Your task to perform on an android device: What's on my calendar tomorrow? Image 0: 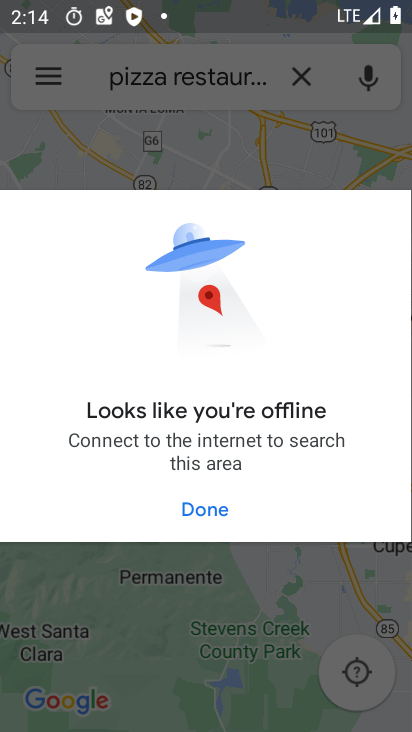
Step 0: press home button
Your task to perform on an android device: What's on my calendar tomorrow? Image 1: 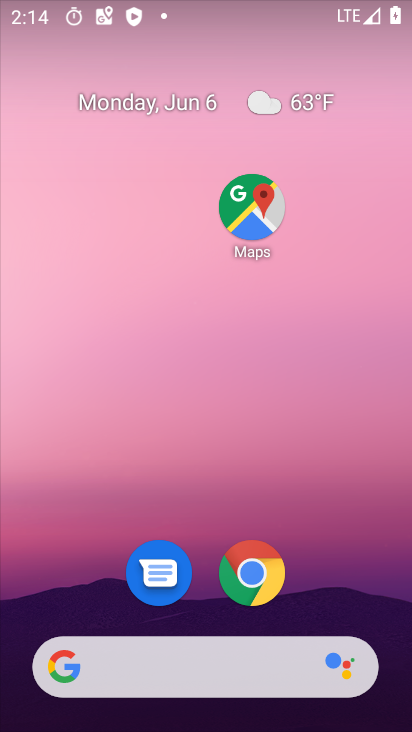
Step 1: click (166, 125)
Your task to perform on an android device: What's on my calendar tomorrow? Image 2: 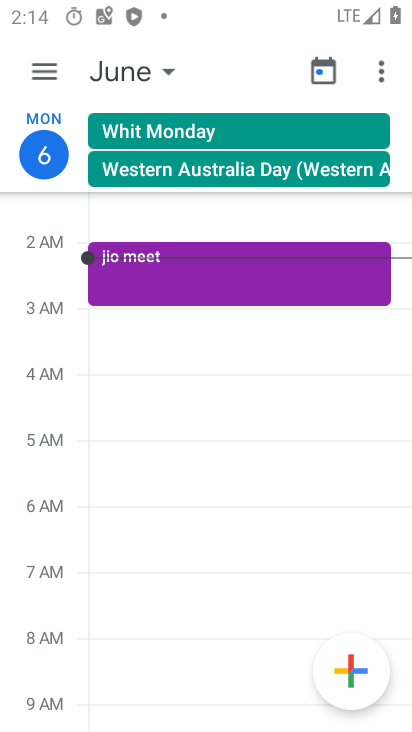
Step 2: drag from (37, 305) to (86, 157)
Your task to perform on an android device: What's on my calendar tomorrow? Image 3: 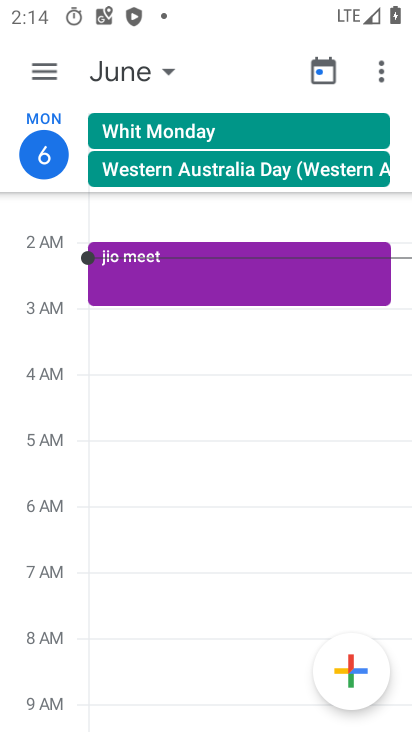
Step 3: press home button
Your task to perform on an android device: What's on my calendar tomorrow? Image 4: 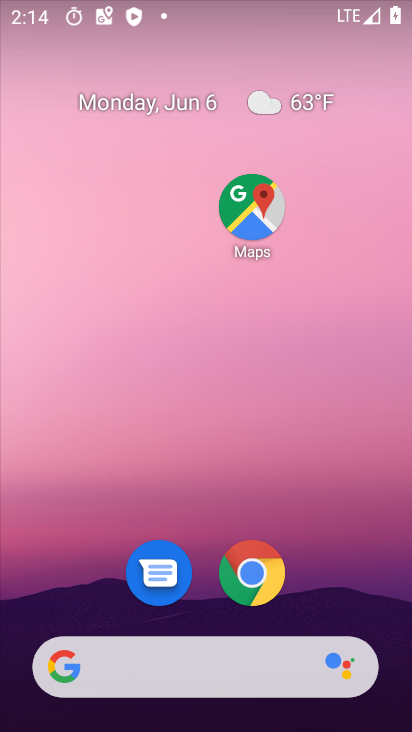
Step 4: drag from (83, 415) to (176, 181)
Your task to perform on an android device: What's on my calendar tomorrow? Image 5: 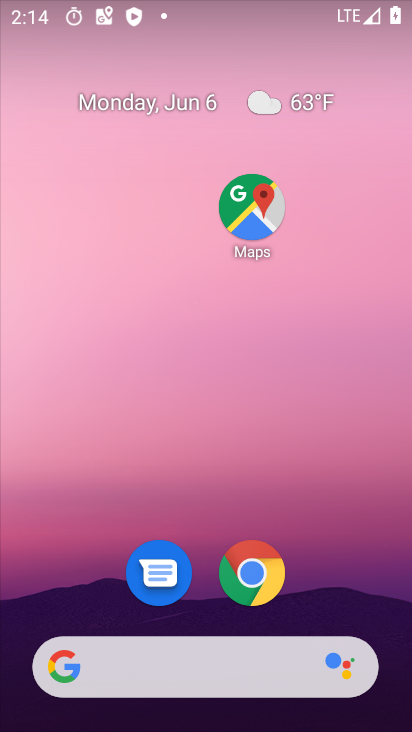
Step 5: drag from (32, 504) to (157, 173)
Your task to perform on an android device: What's on my calendar tomorrow? Image 6: 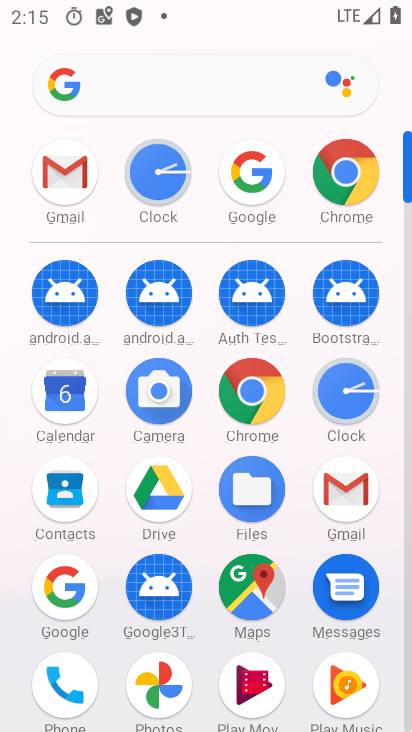
Step 6: click (60, 395)
Your task to perform on an android device: What's on my calendar tomorrow? Image 7: 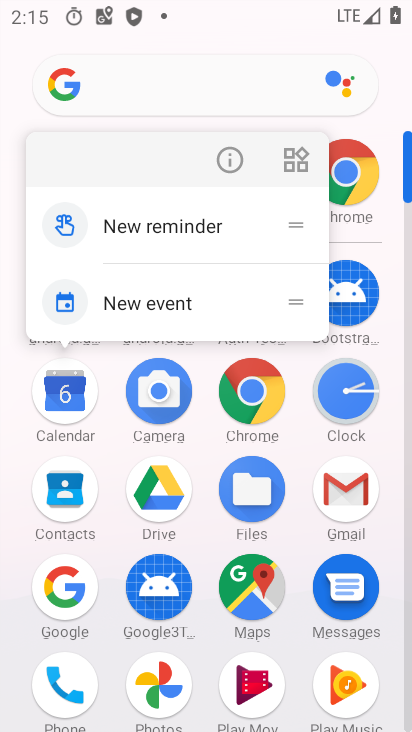
Step 7: click (74, 391)
Your task to perform on an android device: What's on my calendar tomorrow? Image 8: 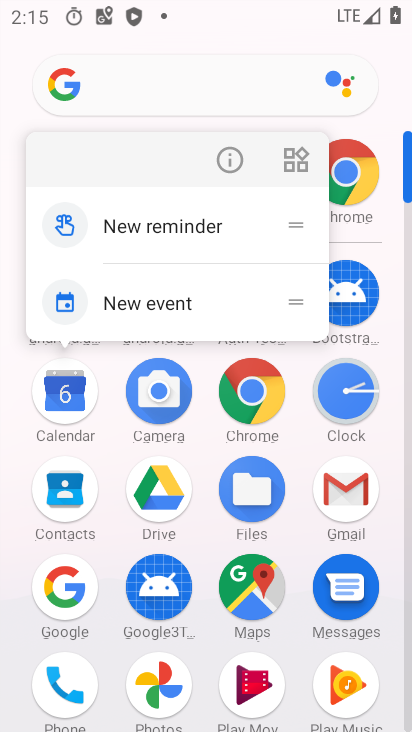
Step 8: click (79, 414)
Your task to perform on an android device: What's on my calendar tomorrow? Image 9: 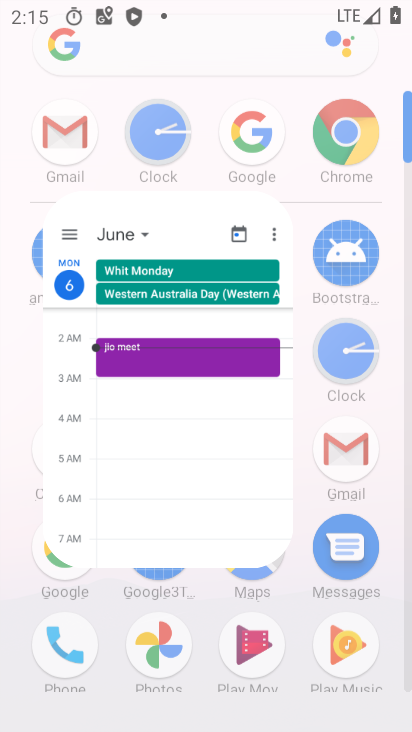
Step 9: click (43, 392)
Your task to perform on an android device: What's on my calendar tomorrow? Image 10: 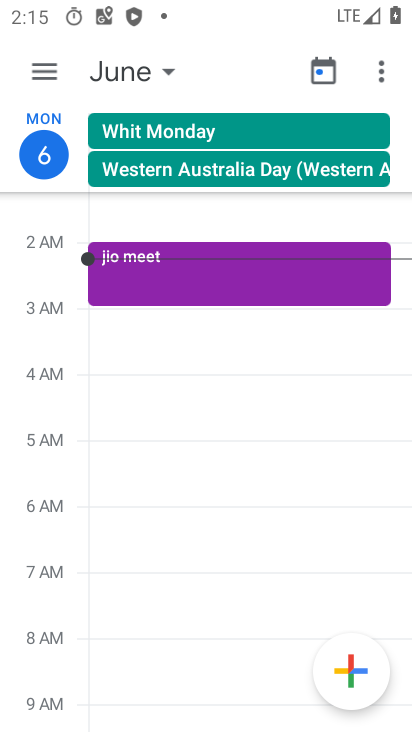
Step 10: type ""
Your task to perform on an android device: What's on my calendar tomorrow? Image 11: 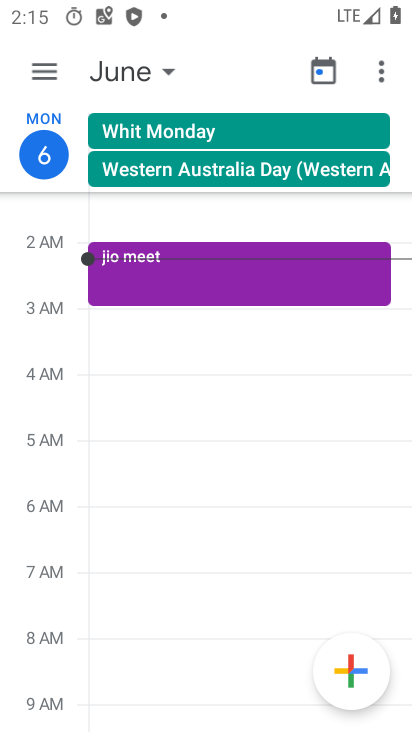
Step 11: click (113, 75)
Your task to perform on an android device: What's on my calendar tomorrow? Image 12: 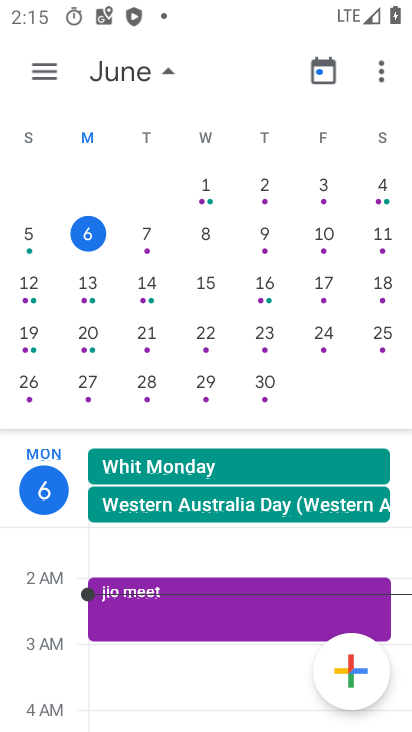
Step 12: click (142, 244)
Your task to perform on an android device: What's on my calendar tomorrow? Image 13: 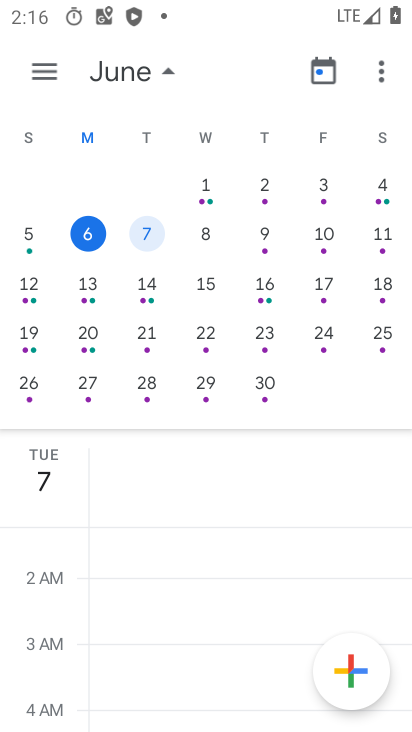
Step 13: task complete